Your task to perform on an android device: turn off airplane mode Image 0: 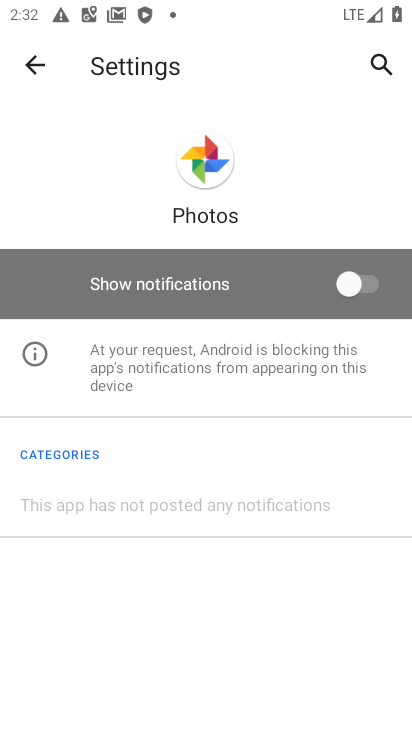
Step 0: press home button
Your task to perform on an android device: turn off airplane mode Image 1: 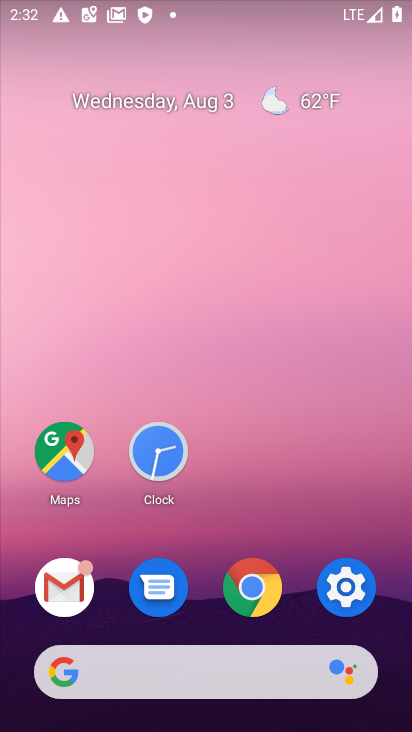
Step 1: click (351, 577)
Your task to perform on an android device: turn off airplane mode Image 2: 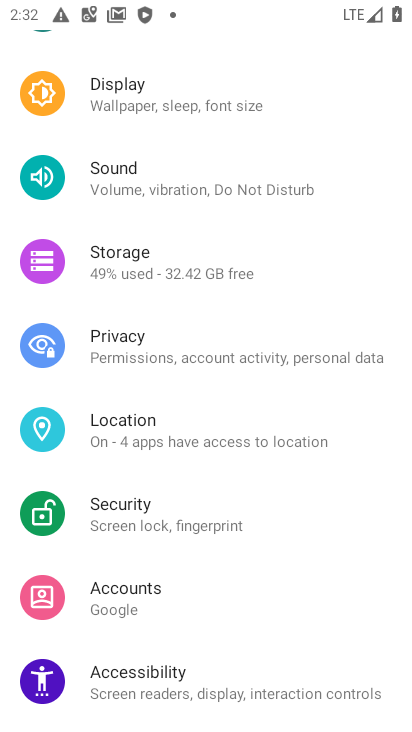
Step 2: drag from (170, 140) to (196, 428)
Your task to perform on an android device: turn off airplane mode Image 3: 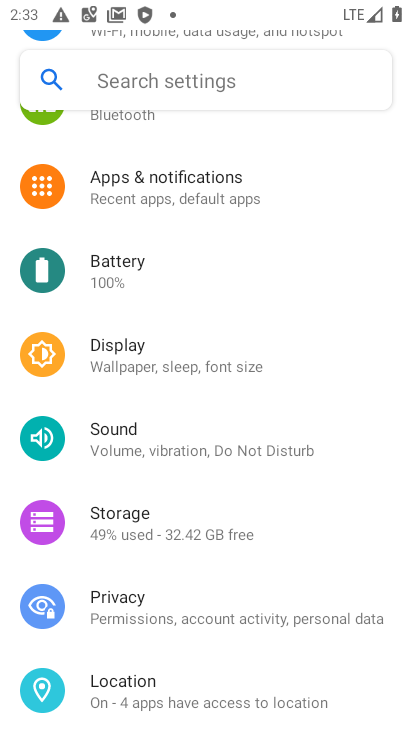
Step 3: drag from (193, 146) to (212, 549)
Your task to perform on an android device: turn off airplane mode Image 4: 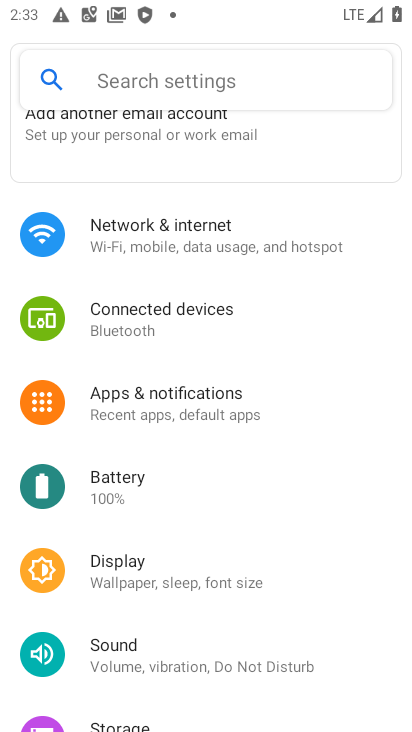
Step 4: click (168, 228)
Your task to perform on an android device: turn off airplane mode Image 5: 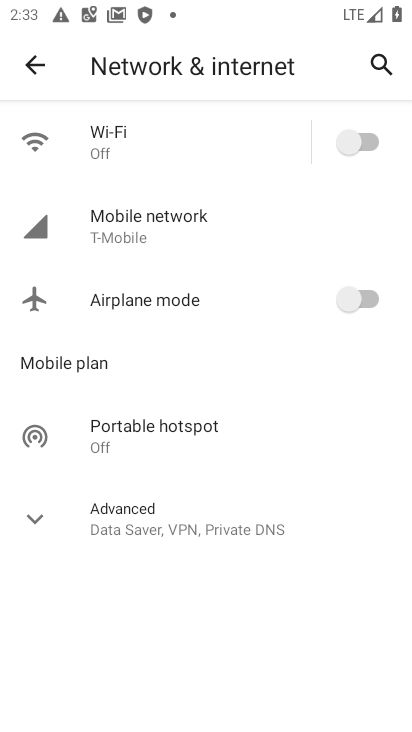
Step 5: task complete